Your task to perform on an android device: turn pop-ups off in chrome Image 0: 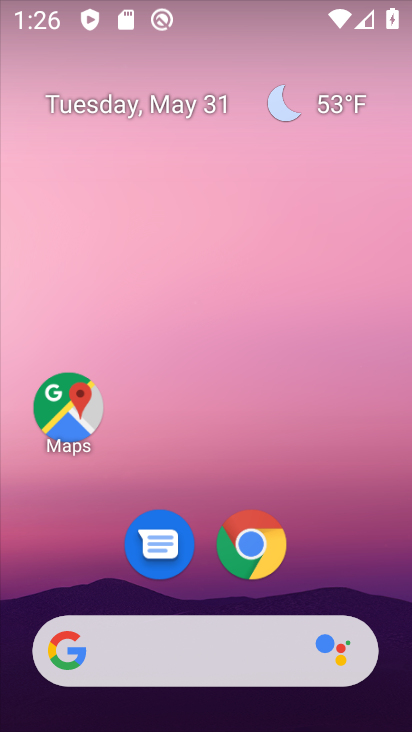
Step 0: click (292, 560)
Your task to perform on an android device: turn pop-ups off in chrome Image 1: 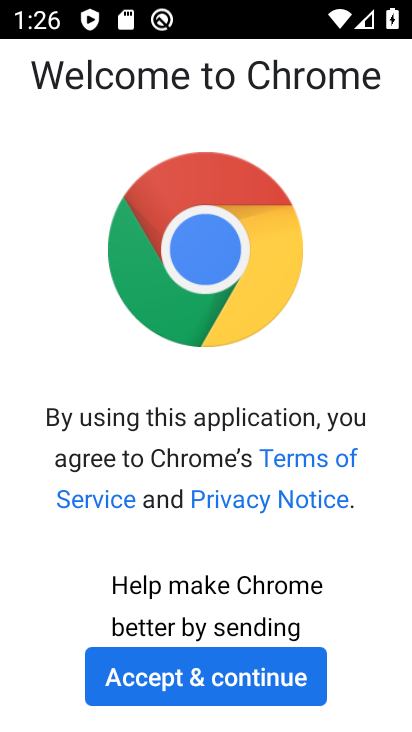
Step 1: click (293, 675)
Your task to perform on an android device: turn pop-ups off in chrome Image 2: 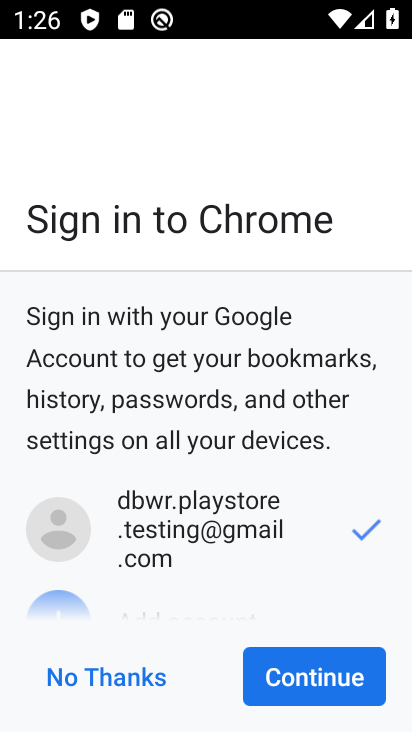
Step 2: click (353, 686)
Your task to perform on an android device: turn pop-ups off in chrome Image 3: 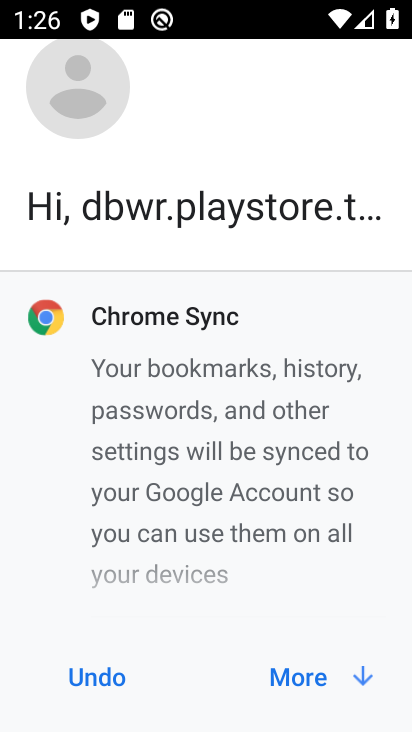
Step 3: click (352, 685)
Your task to perform on an android device: turn pop-ups off in chrome Image 4: 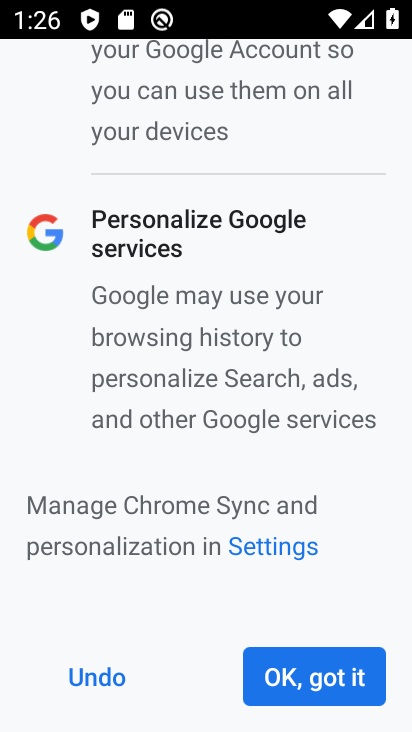
Step 4: click (352, 686)
Your task to perform on an android device: turn pop-ups off in chrome Image 5: 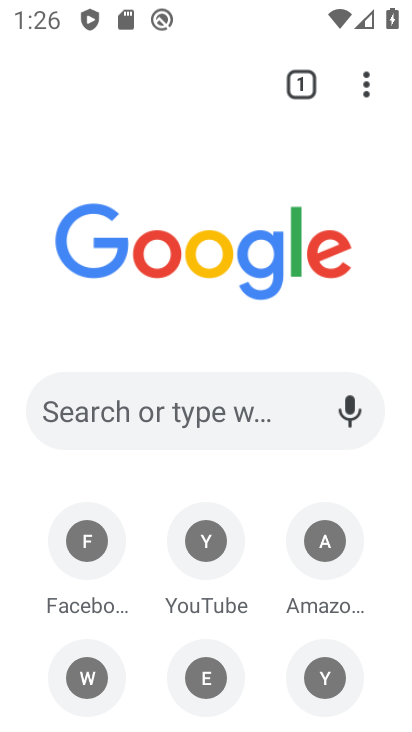
Step 5: click (387, 82)
Your task to perform on an android device: turn pop-ups off in chrome Image 6: 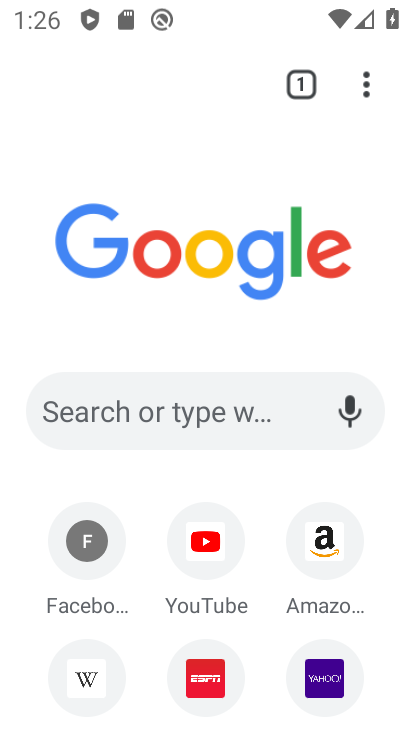
Step 6: click (391, 88)
Your task to perform on an android device: turn pop-ups off in chrome Image 7: 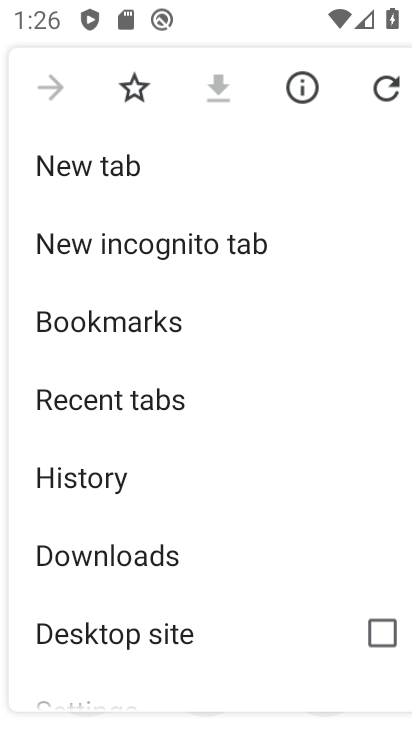
Step 7: drag from (244, 686) to (225, 390)
Your task to perform on an android device: turn pop-ups off in chrome Image 8: 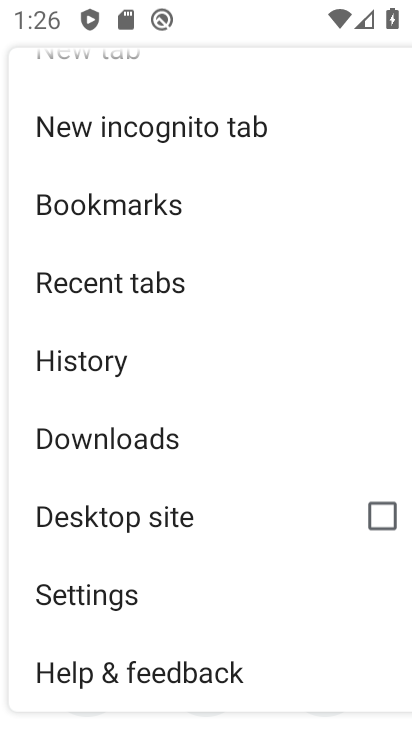
Step 8: click (205, 595)
Your task to perform on an android device: turn pop-ups off in chrome Image 9: 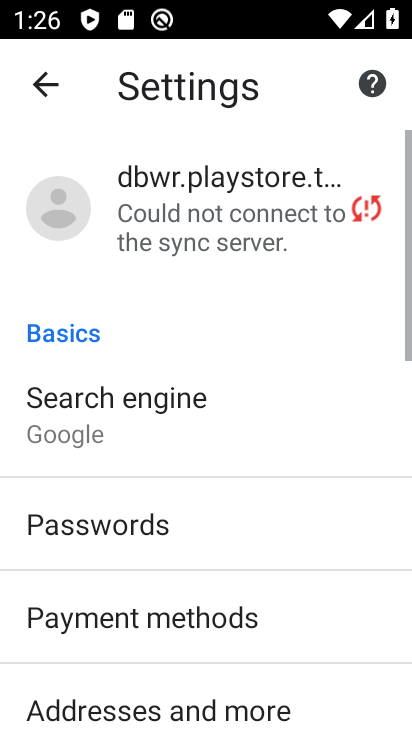
Step 9: drag from (217, 649) to (186, 291)
Your task to perform on an android device: turn pop-ups off in chrome Image 10: 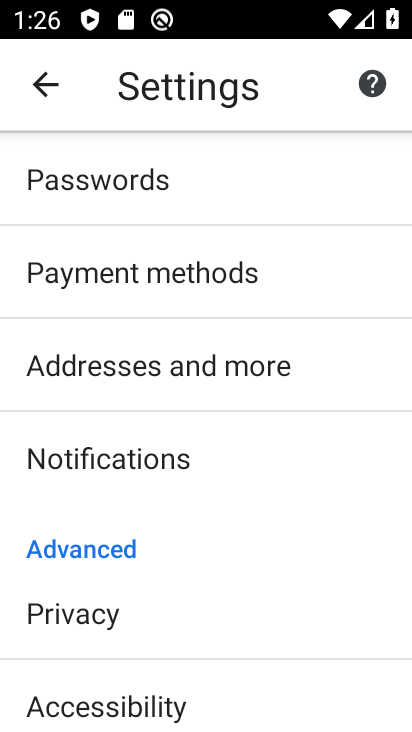
Step 10: drag from (186, 578) to (178, 372)
Your task to perform on an android device: turn pop-ups off in chrome Image 11: 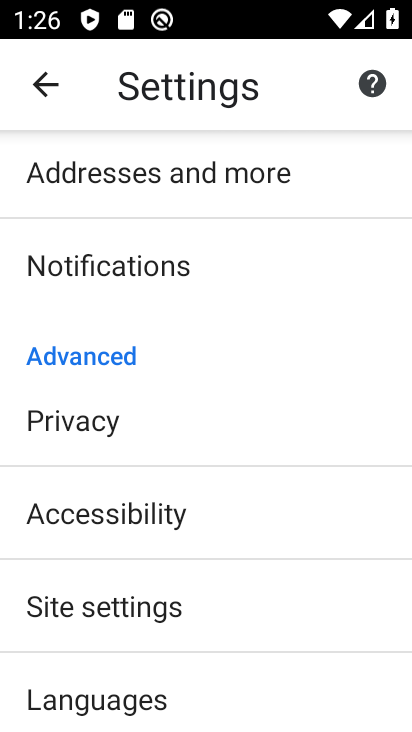
Step 11: click (162, 596)
Your task to perform on an android device: turn pop-ups off in chrome Image 12: 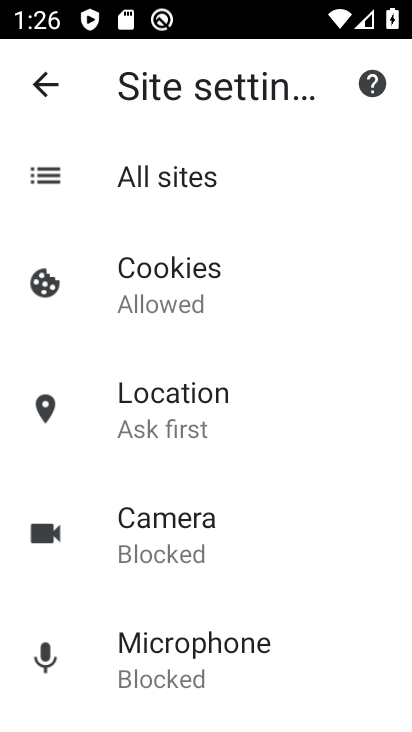
Step 12: drag from (212, 646) to (203, 384)
Your task to perform on an android device: turn pop-ups off in chrome Image 13: 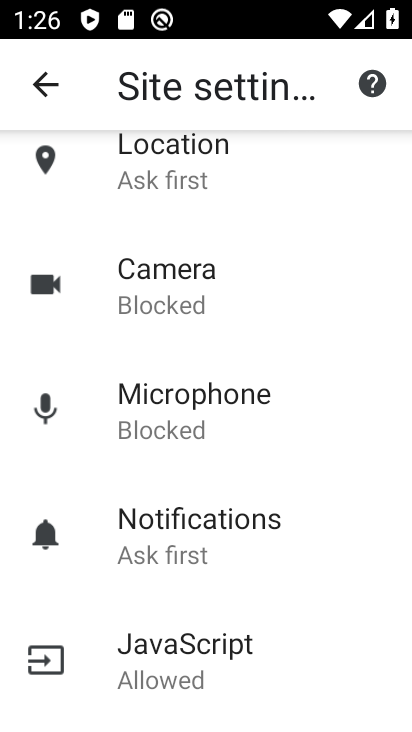
Step 13: drag from (197, 684) to (199, 366)
Your task to perform on an android device: turn pop-ups off in chrome Image 14: 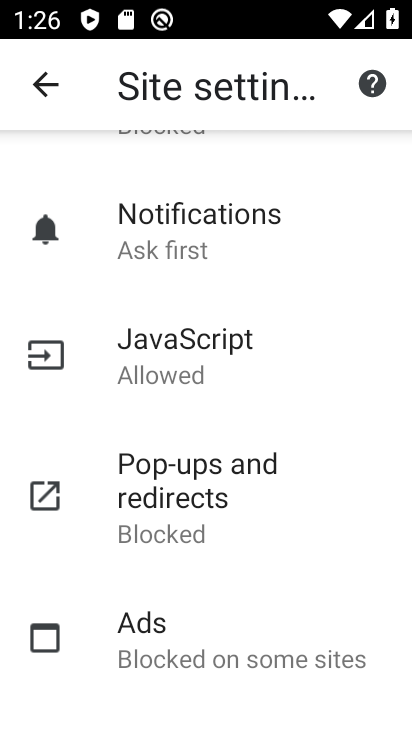
Step 14: click (193, 510)
Your task to perform on an android device: turn pop-ups off in chrome Image 15: 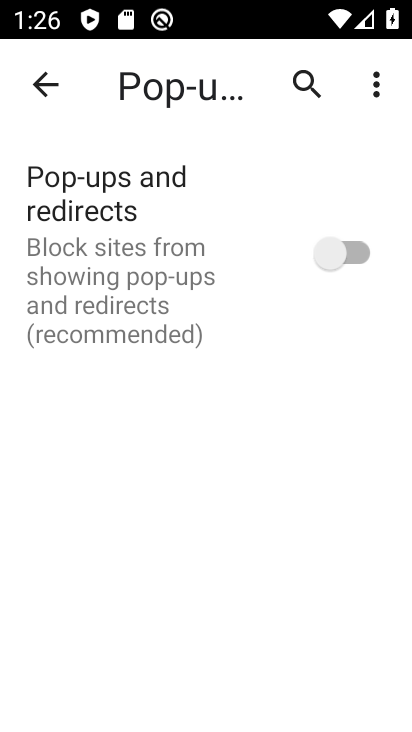
Step 15: task complete